Your task to perform on an android device: Go to display settings Image 0: 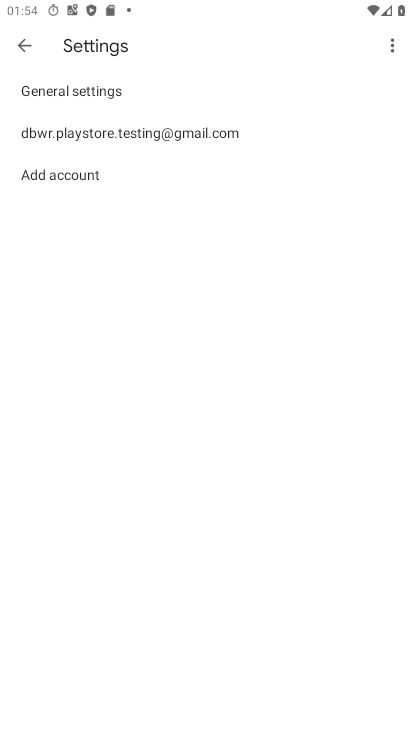
Step 0: press home button
Your task to perform on an android device: Go to display settings Image 1: 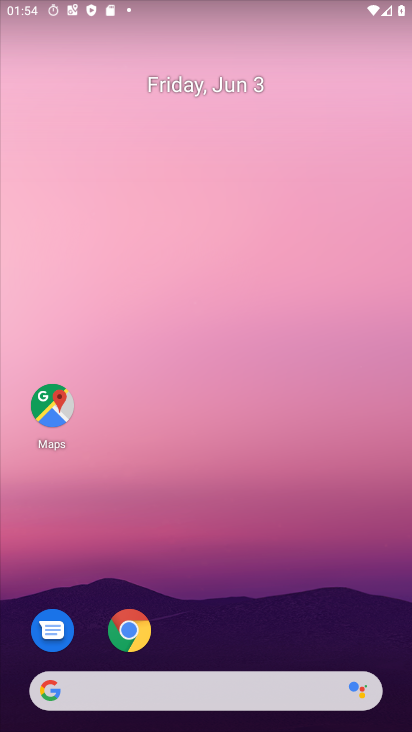
Step 1: drag from (293, 642) to (215, 162)
Your task to perform on an android device: Go to display settings Image 2: 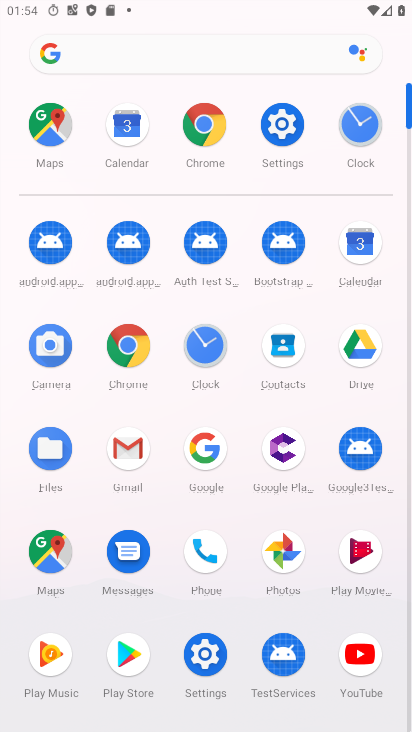
Step 2: click (289, 138)
Your task to perform on an android device: Go to display settings Image 3: 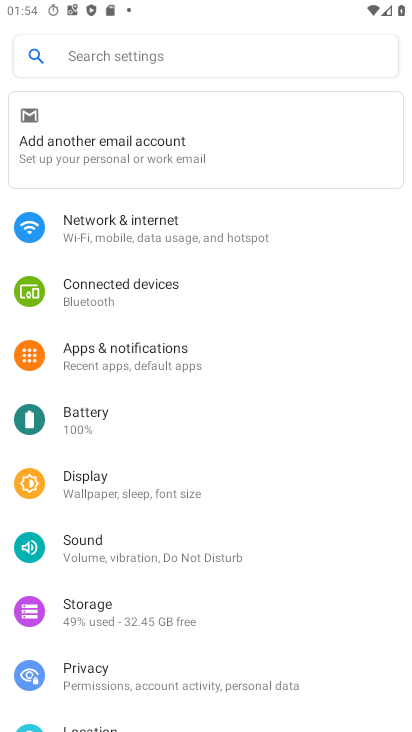
Step 3: click (205, 487)
Your task to perform on an android device: Go to display settings Image 4: 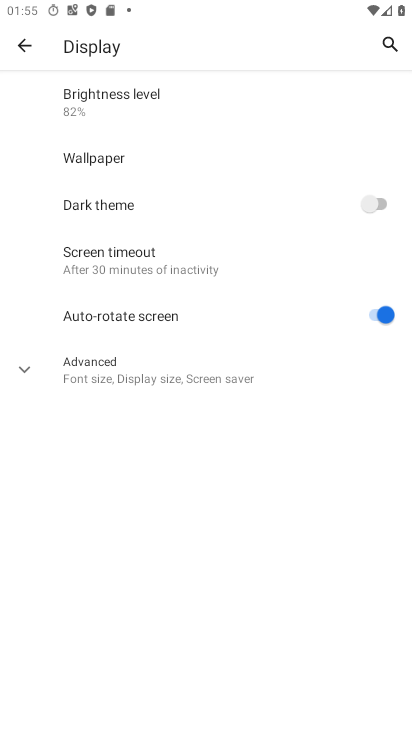
Step 4: task complete